Your task to perform on an android device: delete a single message in the gmail app Image 0: 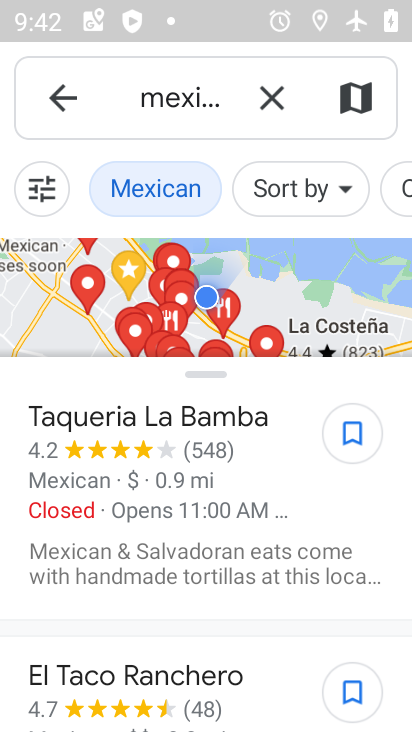
Step 0: press home button
Your task to perform on an android device: delete a single message in the gmail app Image 1: 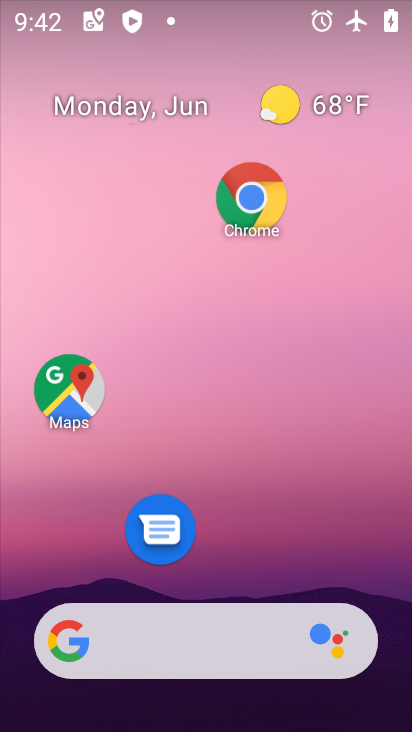
Step 1: drag from (238, 561) to (208, 199)
Your task to perform on an android device: delete a single message in the gmail app Image 2: 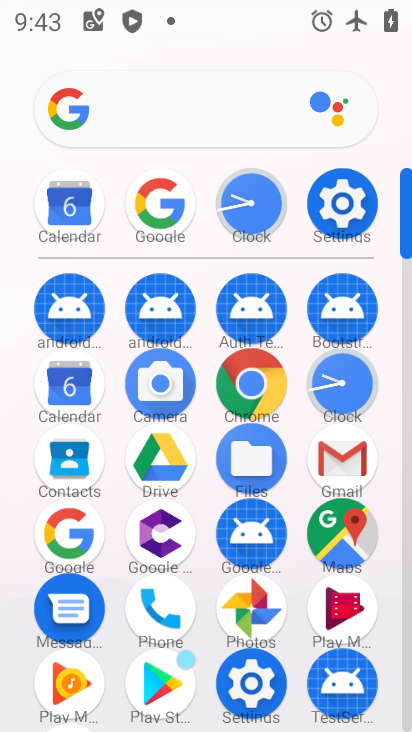
Step 2: click (341, 474)
Your task to perform on an android device: delete a single message in the gmail app Image 3: 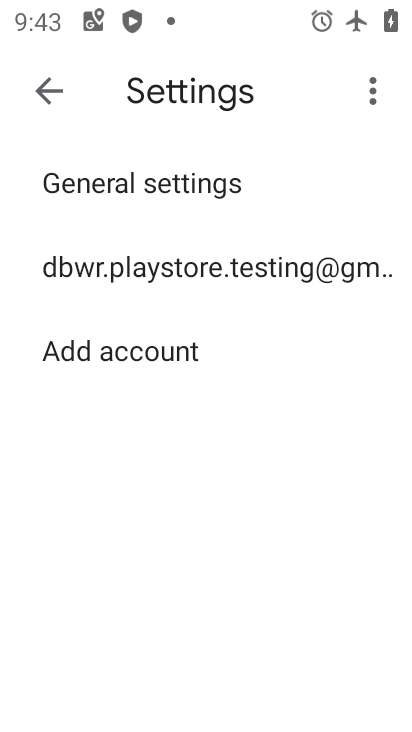
Step 3: click (54, 82)
Your task to perform on an android device: delete a single message in the gmail app Image 4: 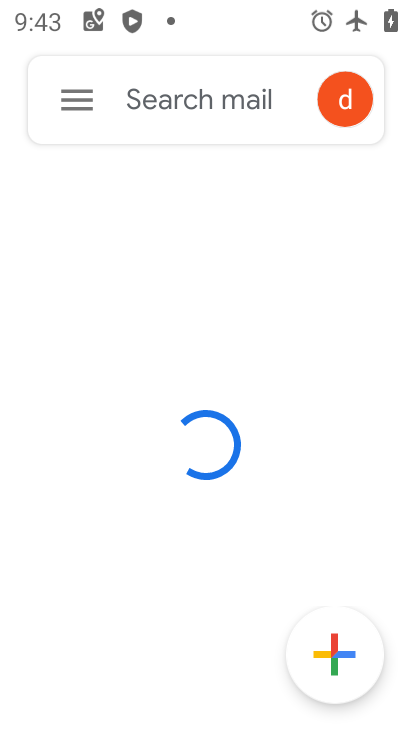
Step 4: click (76, 111)
Your task to perform on an android device: delete a single message in the gmail app Image 5: 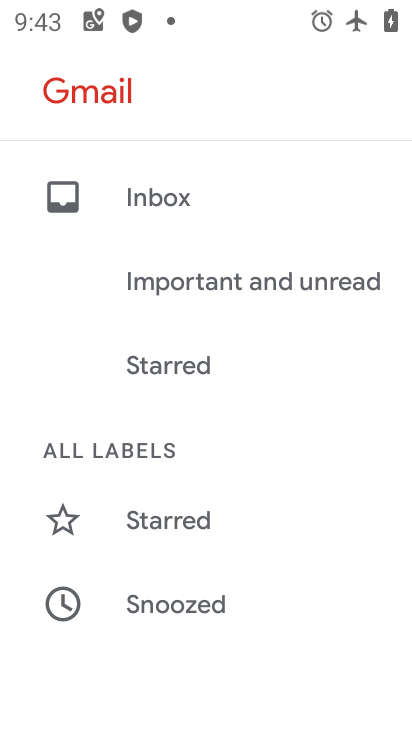
Step 5: drag from (226, 560) to (231, 279)
Your task to perform on an android device: delete a single message in the gmail app Image 6: 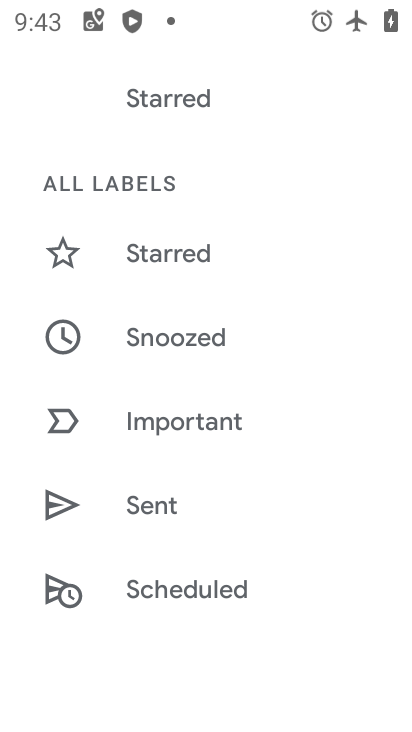
Step 6: drag from (239, 202) to (230, 476)
Your task to perform on an android device: delete a single message in the gmail app Image 7: 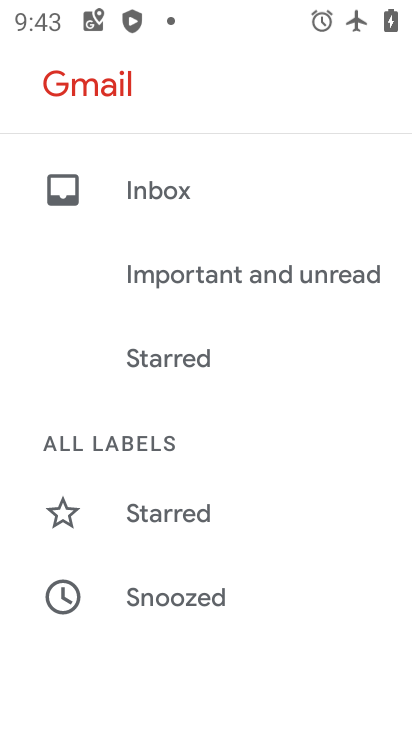
Step 7: drag from (259, 512) to (271, 307)
Your task to perform on an android device: delete a single message in the gmail app Image 8: 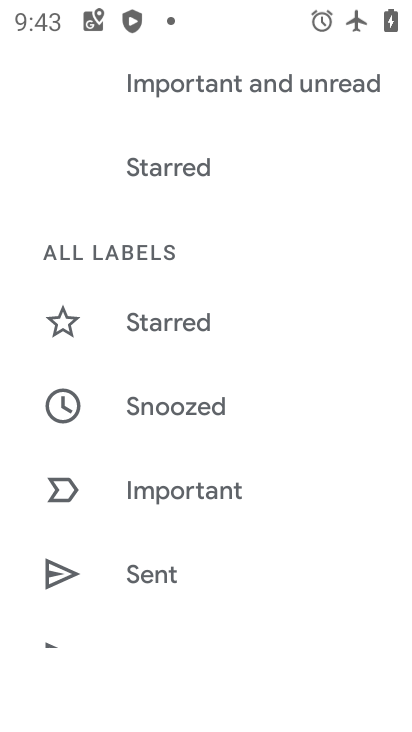
Step 8: drag from (243, 631) to (255, 291)
Your task to perform on an android device: delete a single message in the gmail app Image 9: 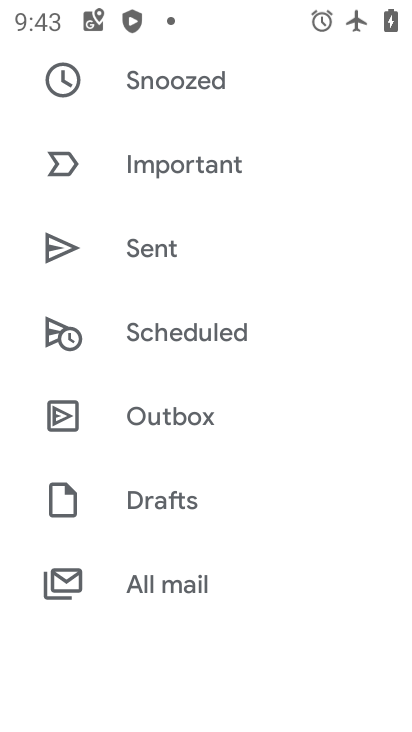
Step 9: drag from (248, 599) to (248, 452)
Your task to perform on an android device: delete a single message in the gmail app Image 10: 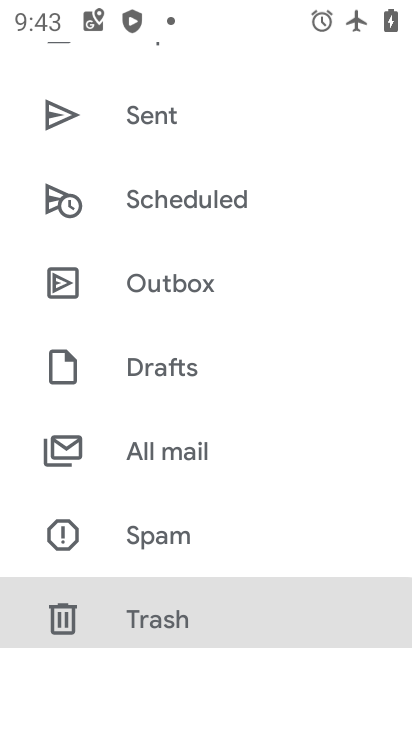
Step 10: click (180, 452)
Your task to perform on an android device: delete a single message in the gmail app Image 11: 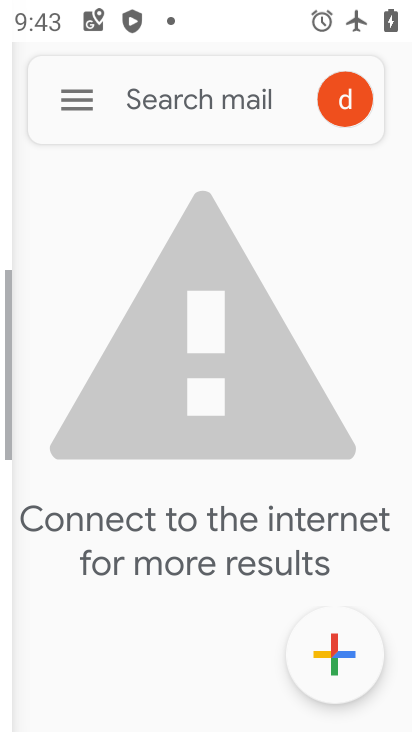
Step 11: click (180, 452)
Your task to perform on an android device: delete a single message in the gmail app Image 12: 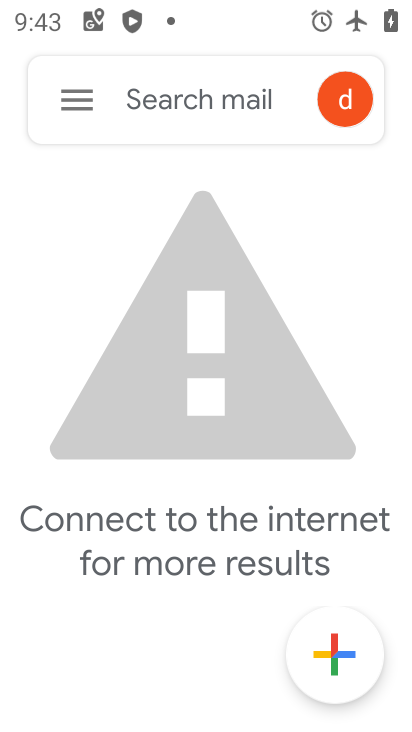
Step 12: task complete